Your task to perform on an android device: turn off location history Image 0: 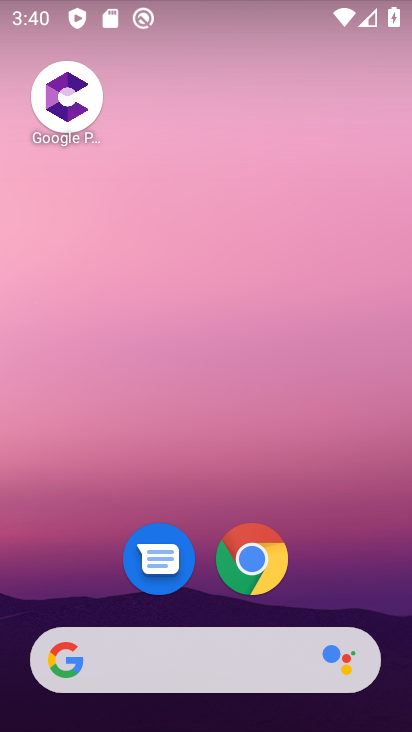
Step 0: drag from (250, 508) to (285, 257)
Your task to perform on an android device: turn off location history Image 1: 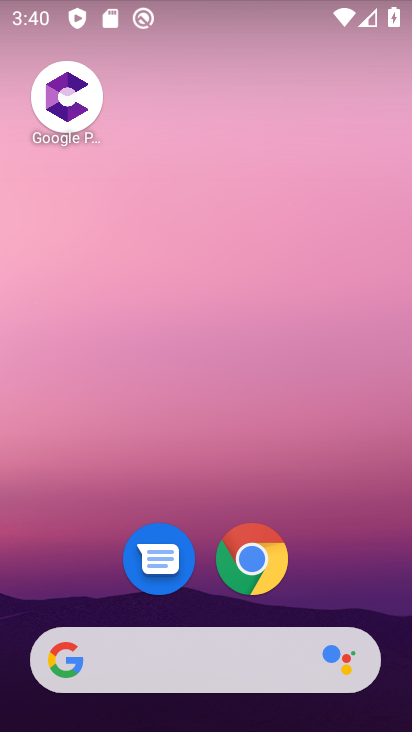
Step 1: drag from (198, 609) to (237, 186)
Your task to perform on an android device: turn off location history Image 2: 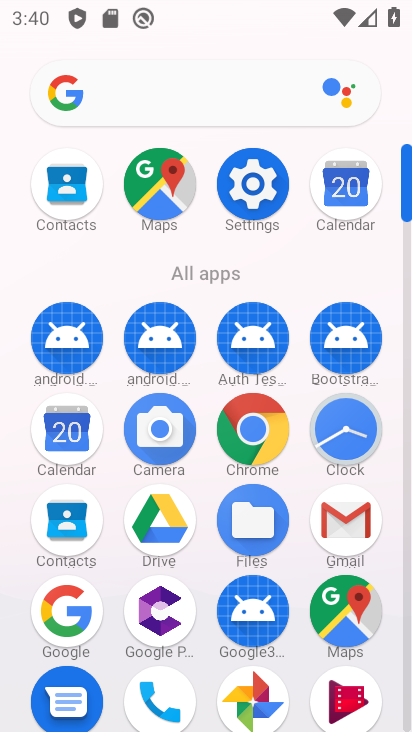
Step 2: click (248, 193)
Your task to perform on an android device: turn off location history Image 3: 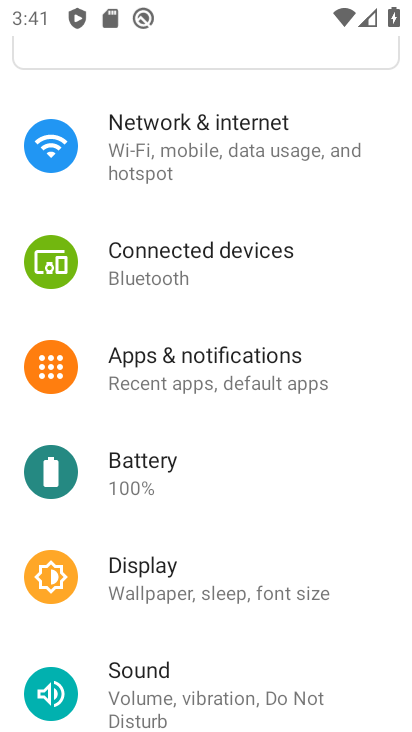
Step 3: drag from (271, 579) to (309, 384)
Your task to perform on an android device: turn off location history Image 4: 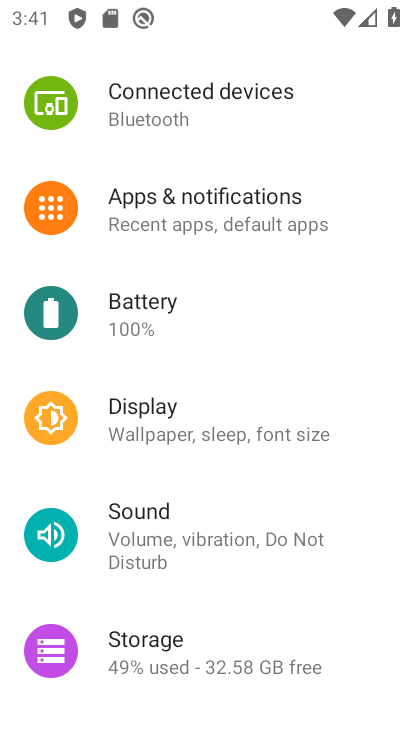
Step 4: drag from (278, 540) to (302, 365)
Your task to perform on an android device: turn off location history Image 5: 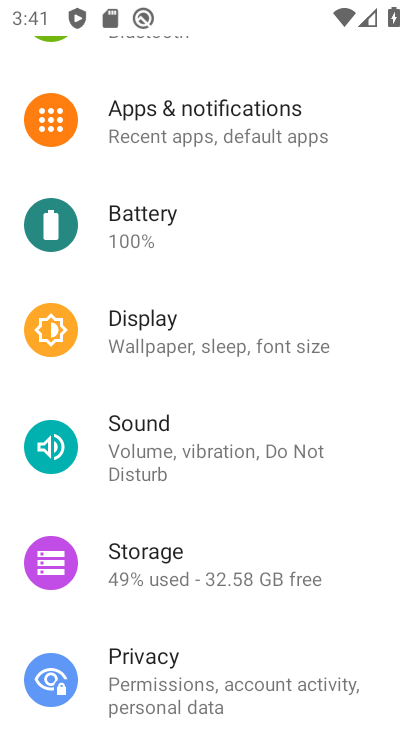
Step 5: drag from (221, 542) to (260, 328)
Your task to perform on an android device: turn off location history Image 6: 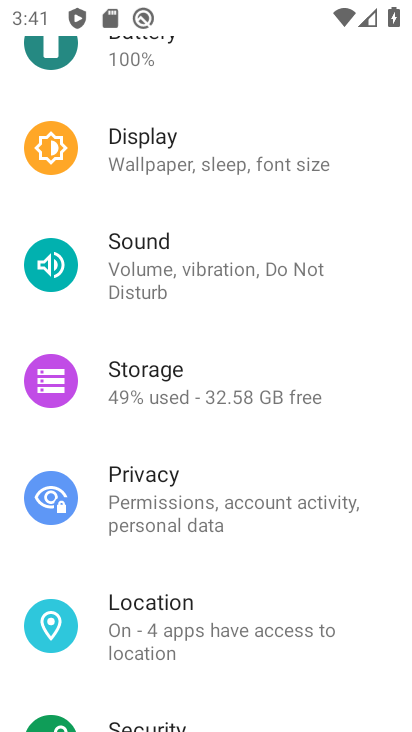
Step 6: drag from (255, 560) to (297, 313)
Your task to perform on an android device: turn off location history Image 7: 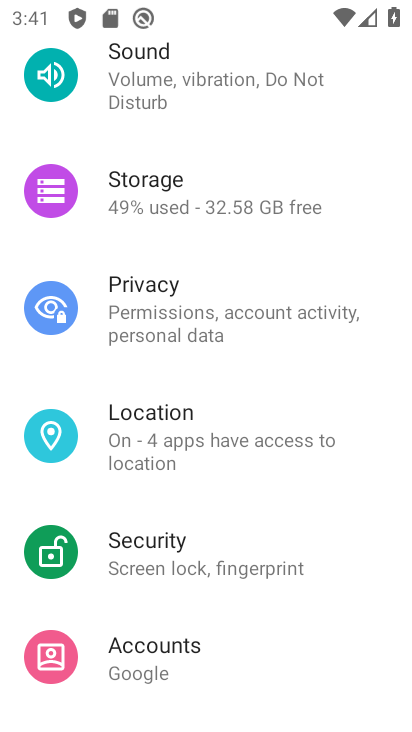
Step 7: click (166, 440)
Your task to perform on an android device: turn off location history Image 8: 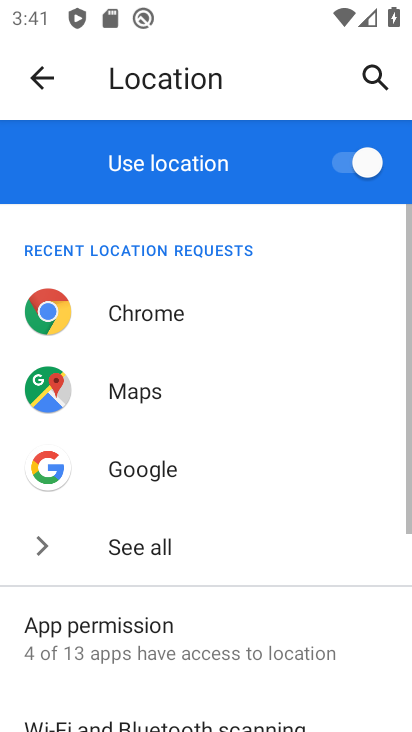
Step 8: drag from (160, 595) to (232, 339)
Your task to perform on an android device: turn off location history Image 9: 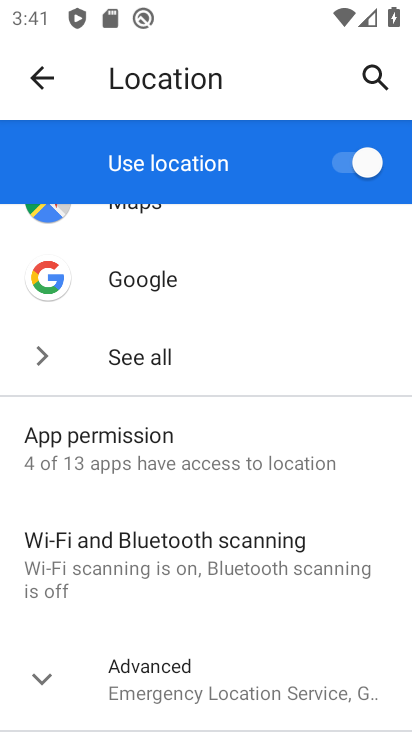
Step 9: drag from (165, 520) to (192, 425)
Your task to perform on an android device: turn off location history Image 10: 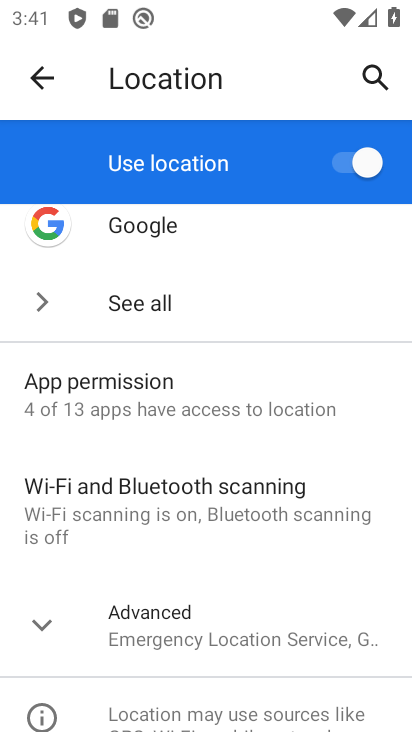
Step 10: drag from (104, 628) to (175, 434)
Your task to perform on an android device: turn off location history Image 11: 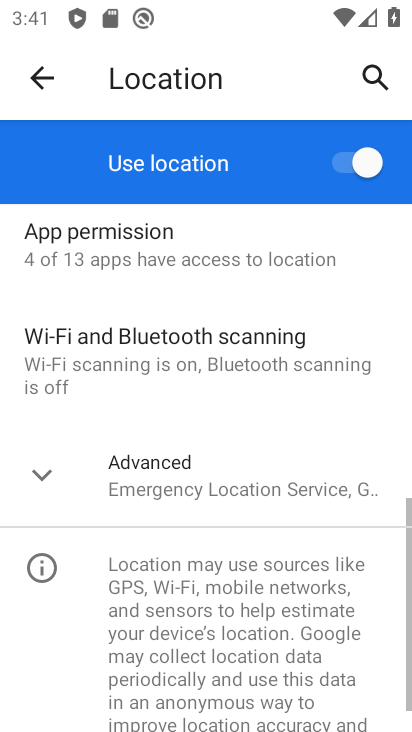
Step 11: click (51, 482)
Your task to perform on an android device: turn off location history Image 12: 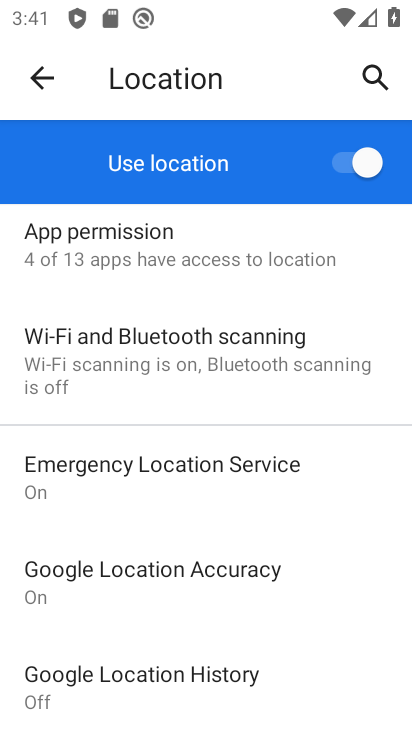
Step 12: drag from (198, 534) to (212, 437)
Your task to perform on an android device: turn off location history Image 13: 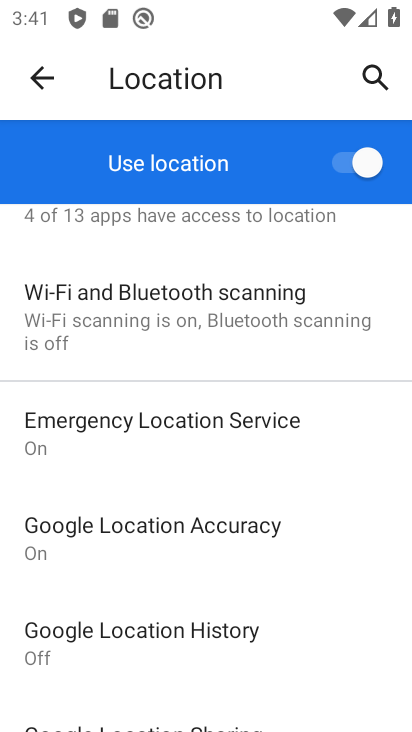
Step 13: click (131, 631)
Your task to perform on an android device: turn off location history Image 14: 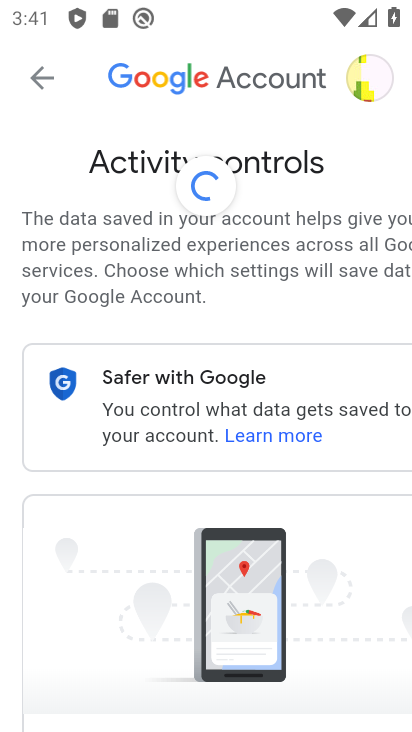
Step 14: drag from (183, 507) to (217, 248)
Your task to perform on an android device: turn off location history Image 15: 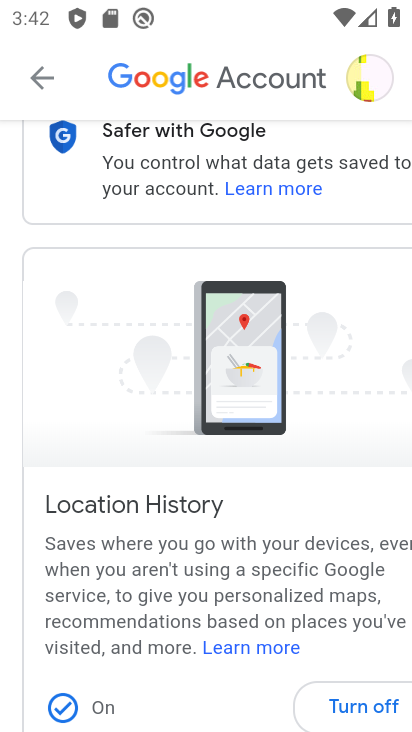
Step 15: drag from (257, 443) to (258, 385)
Your task to perform on an android device: turn off location history Image 16: 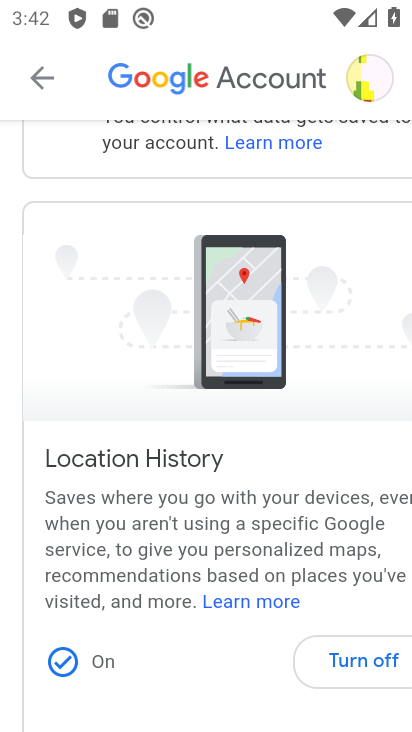
Step 16: click (361, 656)
Your task to perform on an android device: turn off location history Image 17: 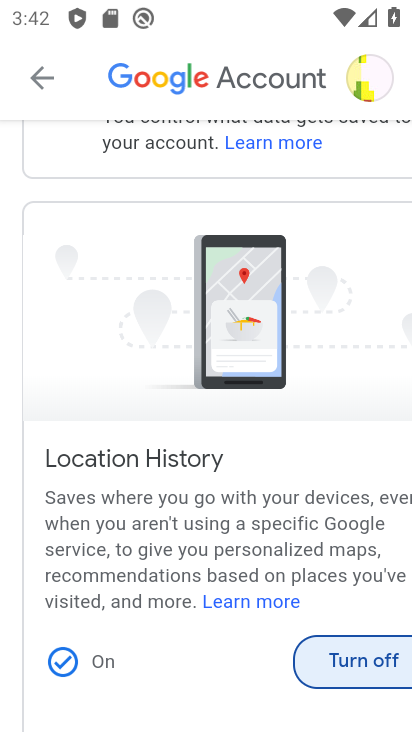
Step 17: click (339, 655)
Your task to perform on an android device: turn off location history Image 18: 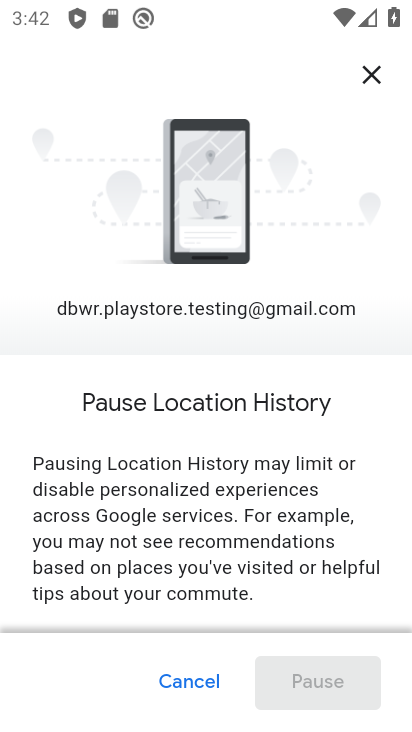
Step 18: task complete